Your task to perform on an android device: What is the news today? Image 0: 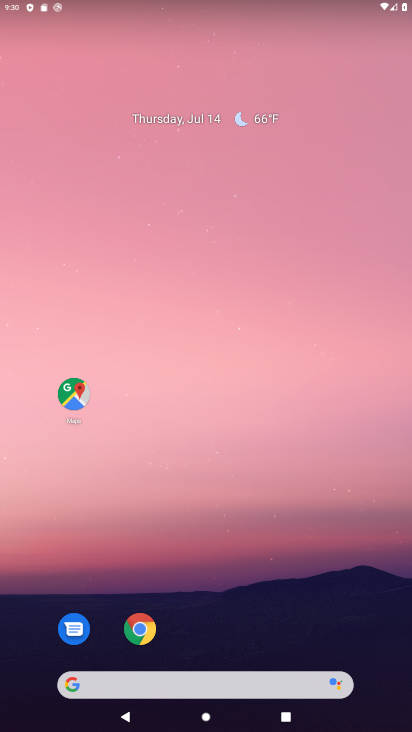
Step 0: press home button
Your task to perform on an android device: What is the news today? Image 1: 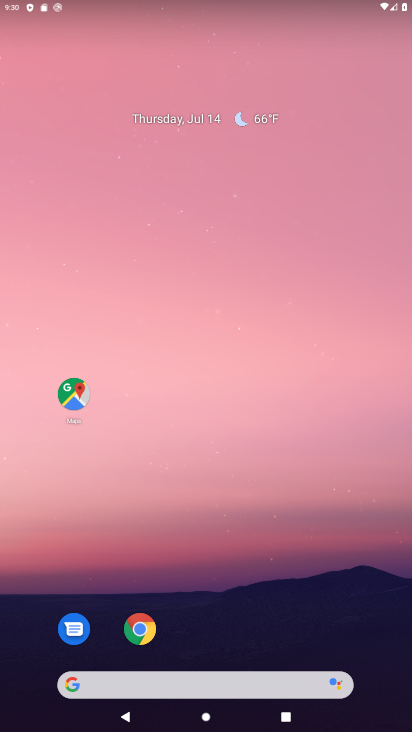
Step 1: click (68, 680)
Your task to perform on an android device: What is the news today? Image 2: 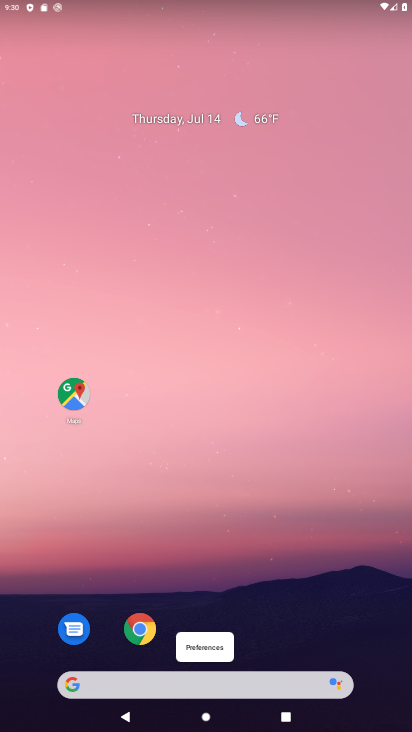
Step 2: click (70, 685)
Your task to perform on an android device: What is the news today? Image 3: 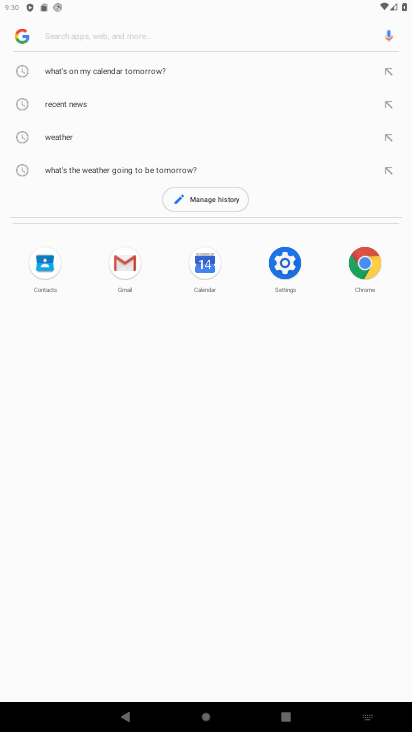
Step 3: type "news today?"
Your task to perform on an android device: What is the news today? Image 4: 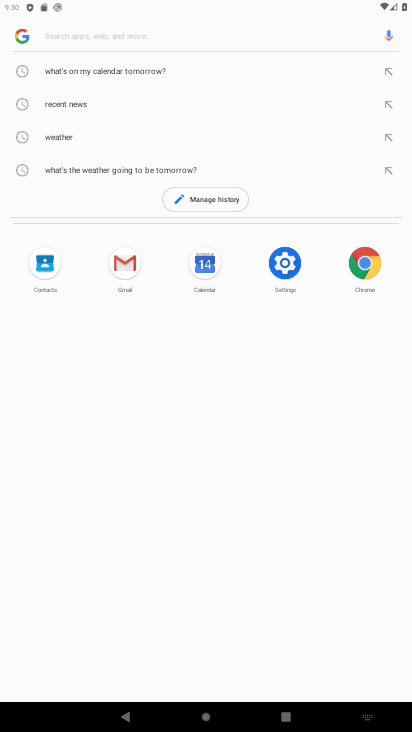
Step 4: click (67, 38)
Your task to perform on an android device: What is the news today? Image 5: 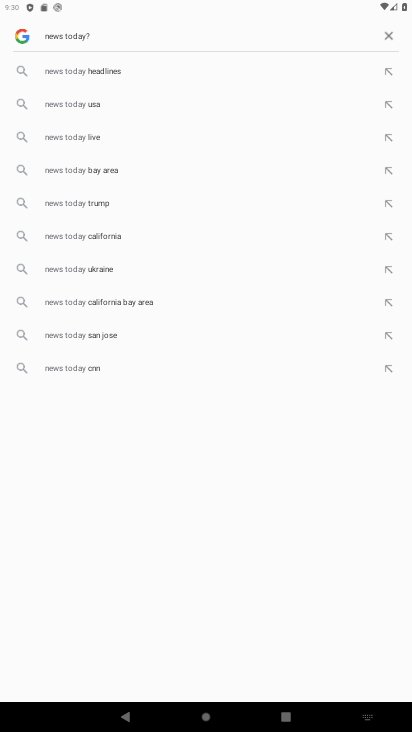
Step 5: press enter
Your task to perform on an android device: What is the news today? Image 6: 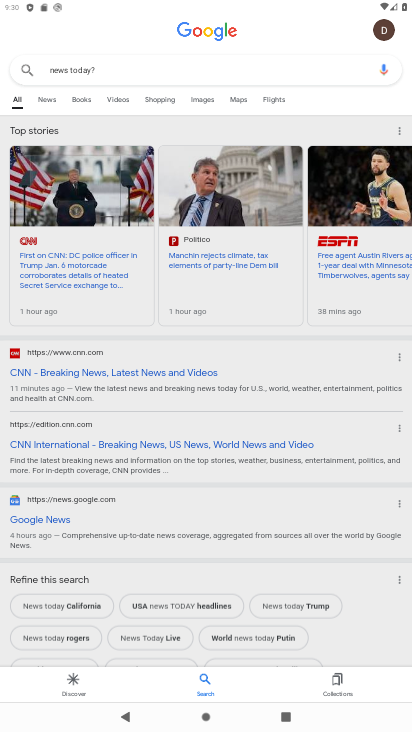
Step 6: task complete